Your task to perform on an android device: Go to accessibility settings Image 0: 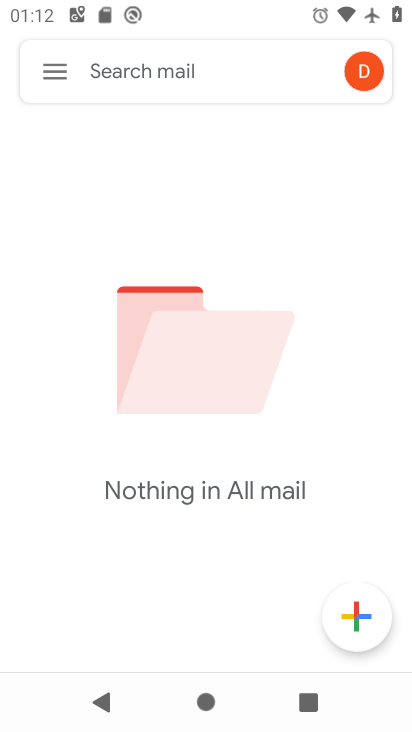
Step 0: press home button
Your task to perform on an android device: Go to accessibility settings Image 1: 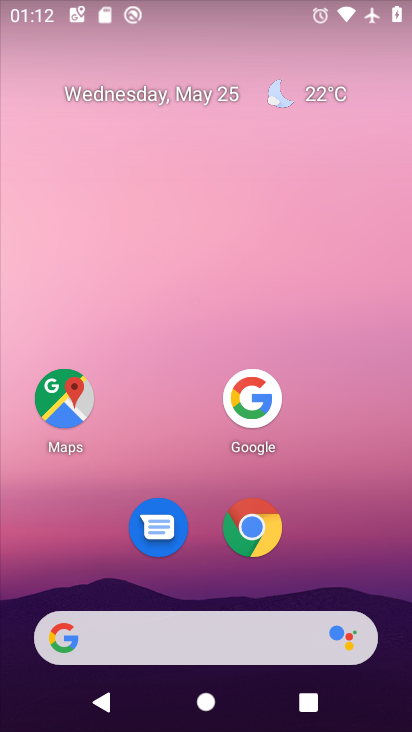
Step 1: drag from (152, 645) to (296, 142)
Your task to perform on an android device: Go to accessibility settings Image 2: 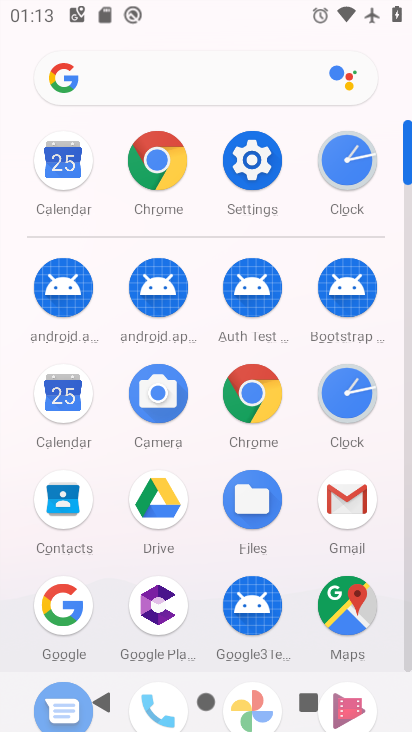
Step 2: click (257, 171)
Your task to perform on an android device: Go to accessibility settings Image 3: 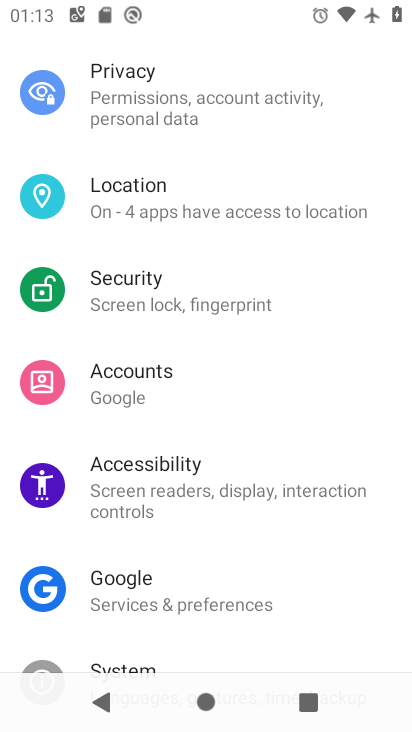
Step 3: drag from (240, 580) to (325, 144)
Your task to perform on an android device: Go to accessibility settings Image 4: 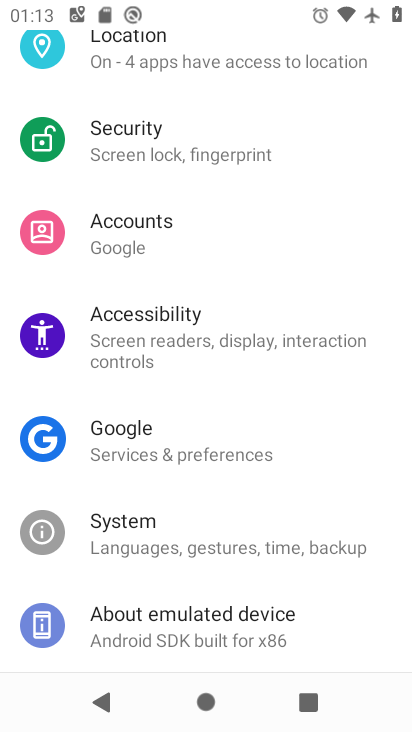
Step 4: click (126, 334)
Your task to perform on an android device: Go to accessibility settings Image 5: 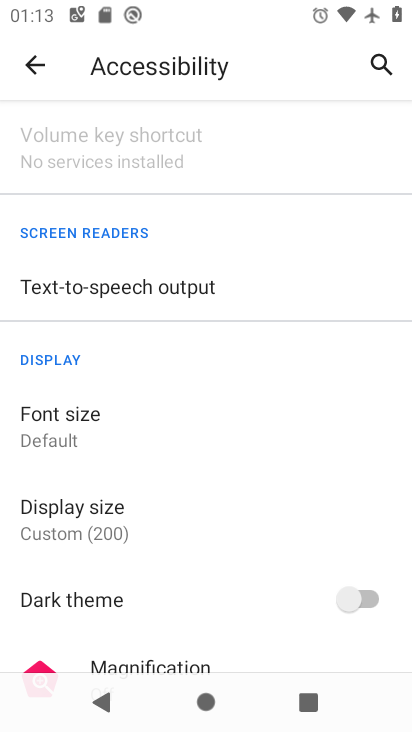
Step 5: task complete